Your task to perform on an android device: manage bookmarks in the chrome app Image 0: 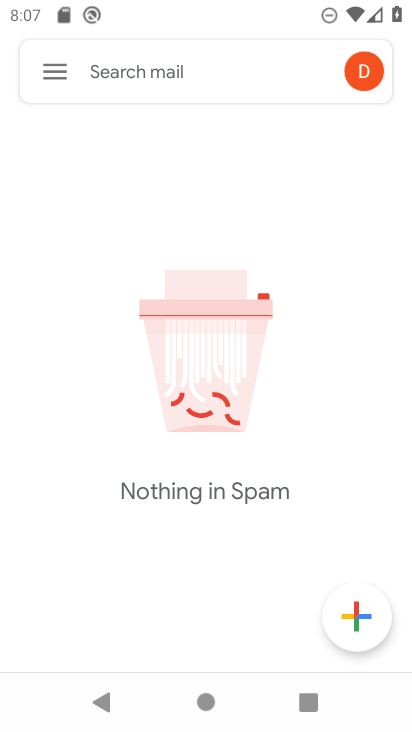
Step 0: press home button
Your task to perform on an android device: manage bookmarks in the chrome app Image 1: 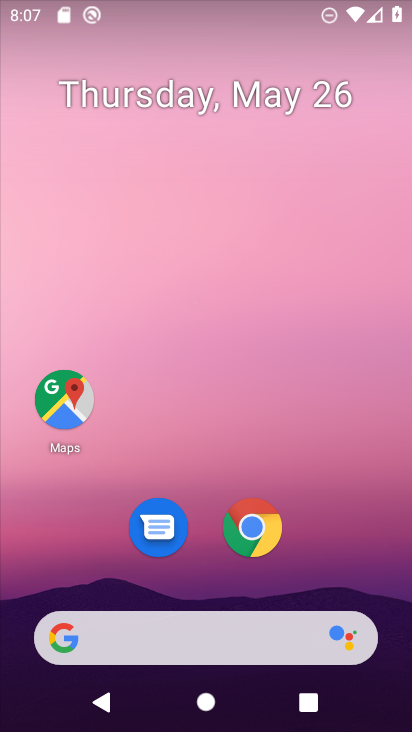
Step 1: click (244, 537)
Your task to perform on an android device: manage bookmarks in the chrome app Image 2: 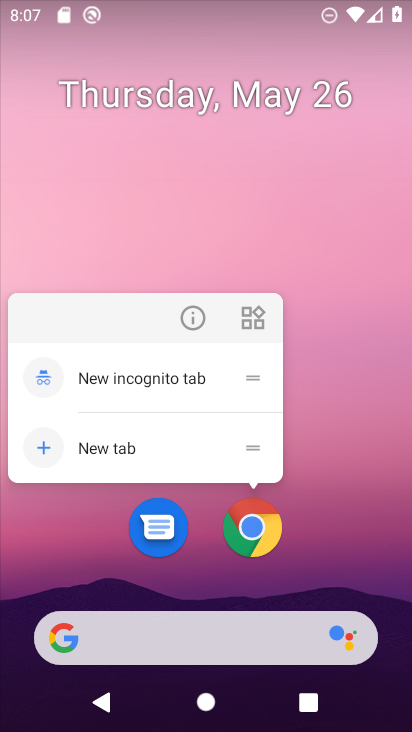
Step 2: click (245, 521)
Your task to perform on an android device: manage bookmarks in the chrome app Image 3: 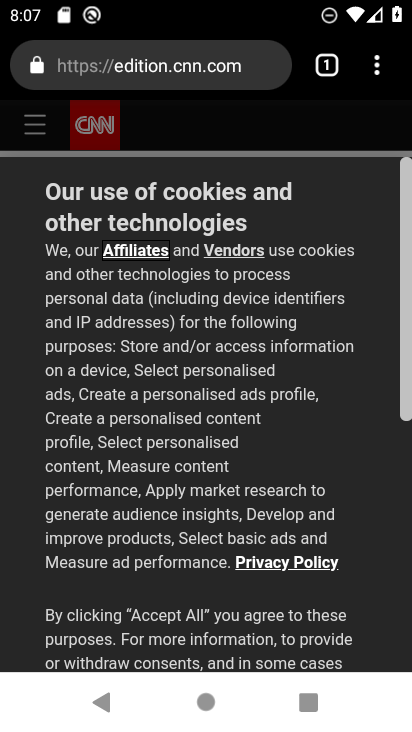
Step 3: click (381, 68)
Your task to perform on an android device: manage bookmarks in the chrome app Image 4: 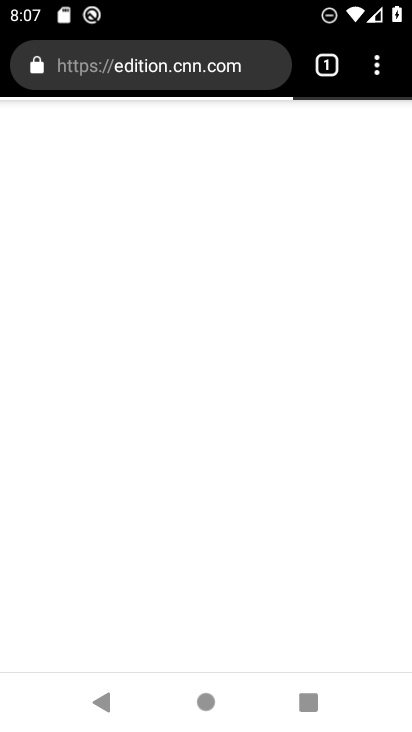
Step 4: click (375, 71)
Your task to perform on an android device: manage bookmarks in the chrome app Image 5: 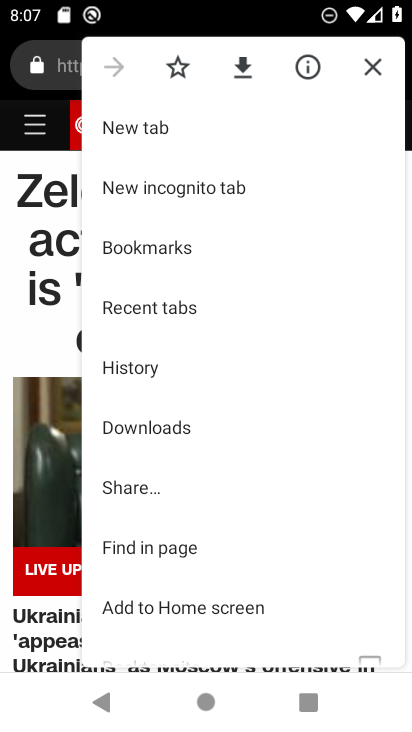
Step 5: click (100, 243)
Your task to perform on an android device: manage bookmarks in the chrome app Image 6: 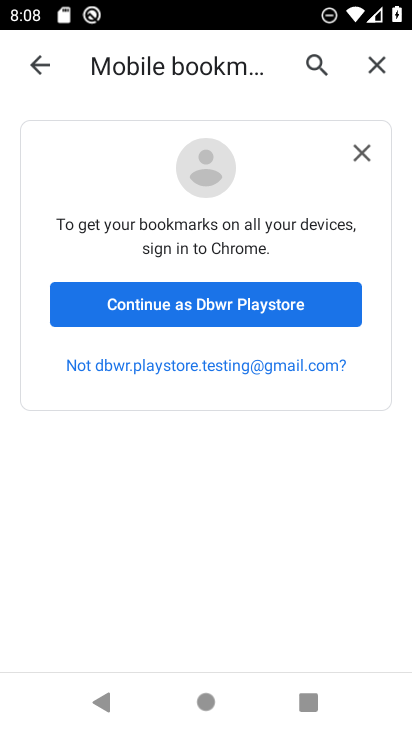
Step 6: task complete